Your task to perform on an android device: delete a single message in the gmail app Image 0: 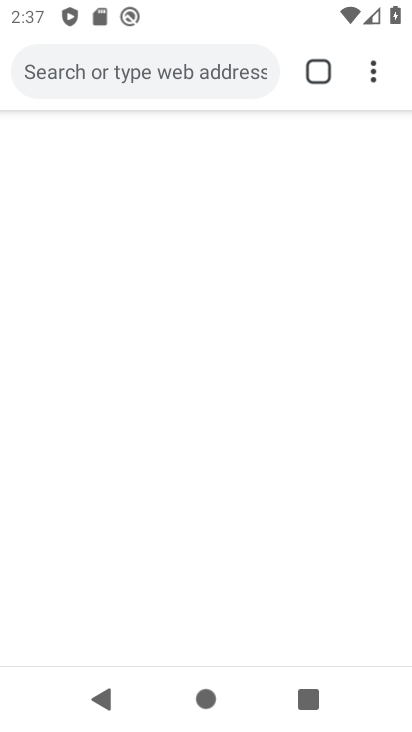
Step 0: drag from (242, 536) to (273, 208)
Your task to perform on an android device: delete a single message in the gmail app Image 1: 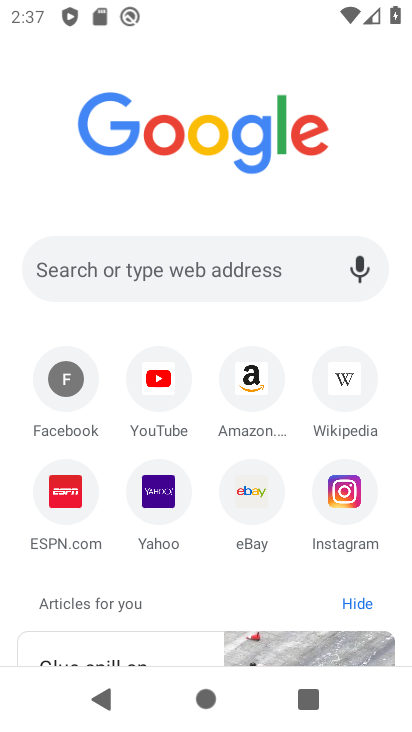
Step 1: press home button
Your task to perform on an android device: delete a single message in the gmail app Image 2: 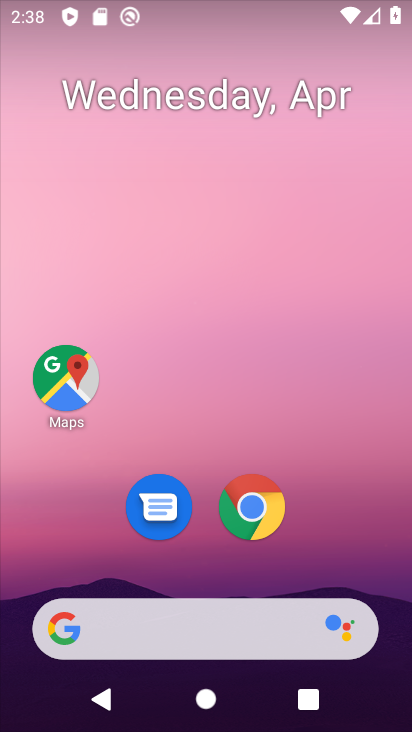
Step 2: drag from (250, 609) to (327, 56)
Your task to perform on an android device: delete a single message in the gmail app Image 3: 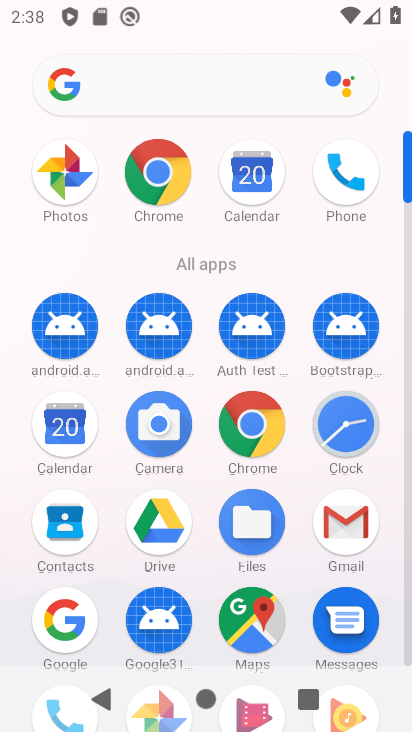
Step 3: click (373, 548)
Your task to perform on an android device: delete a single message in the gmail app Image 4: 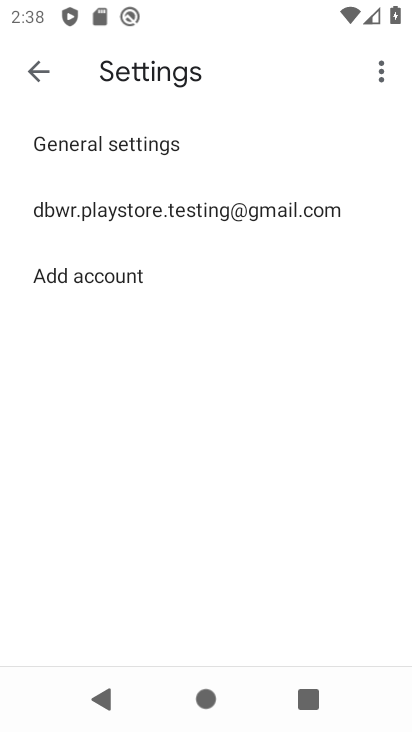
Step 4: press back button
Your task to perform on an android device: delete a single message in the gmail app Image 5: 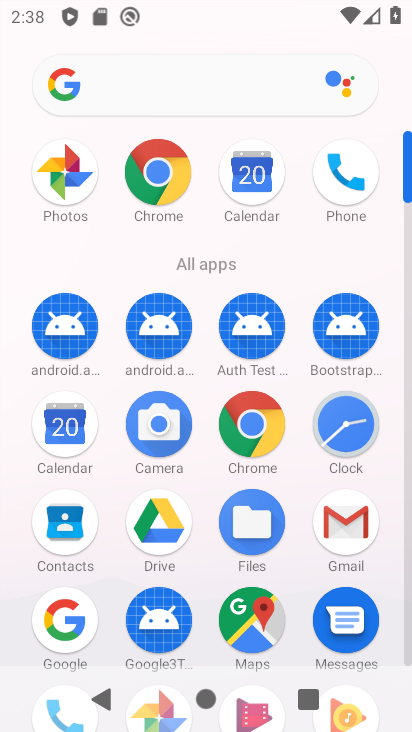
Step 5: click (340, 515)
Your task to perform on an android device: delete a single message in the gmail app Image 6: 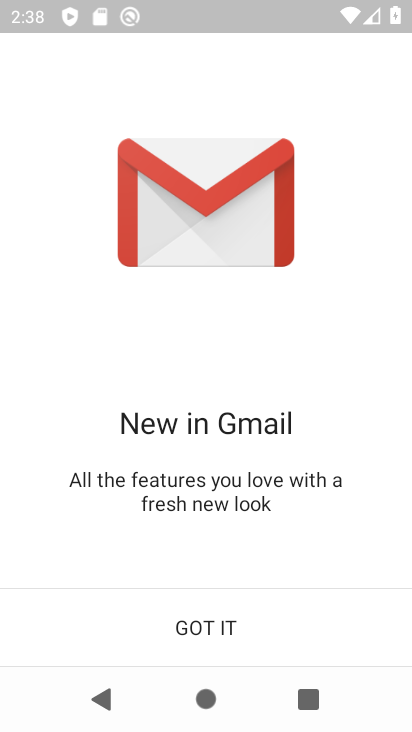
Step 6: click (211, 613)
Your task to perform on an android device: delete a single message in the gmail app Image 7: 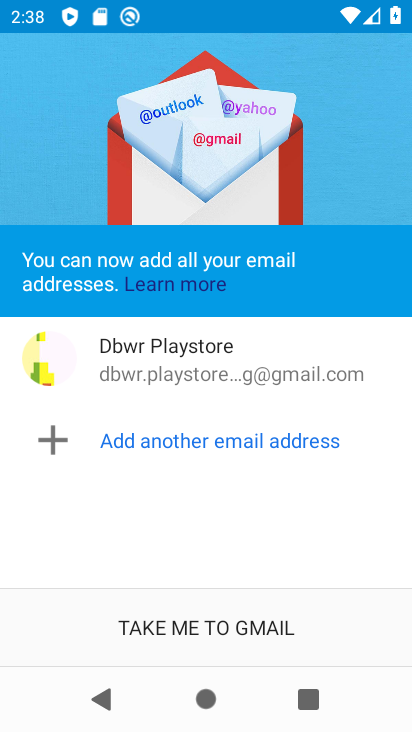
Step 7: click (280, 617)
Your task to perform on an android device: delete a single message in the gmail app Image 8: 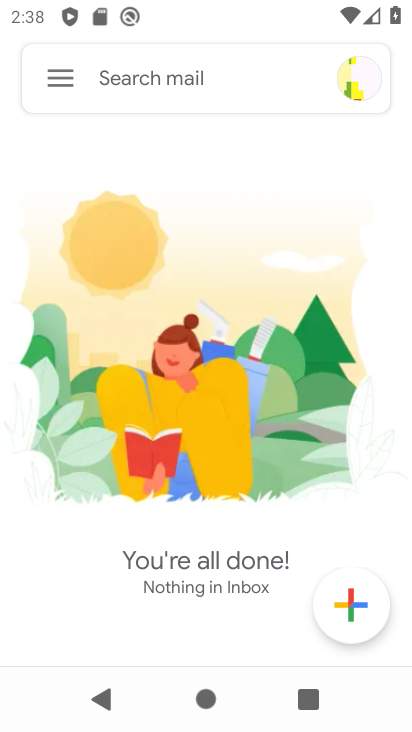
Step 8: click (62, 74)
Your task to perform on an android device: delete a single message in the gmail app Image 9: 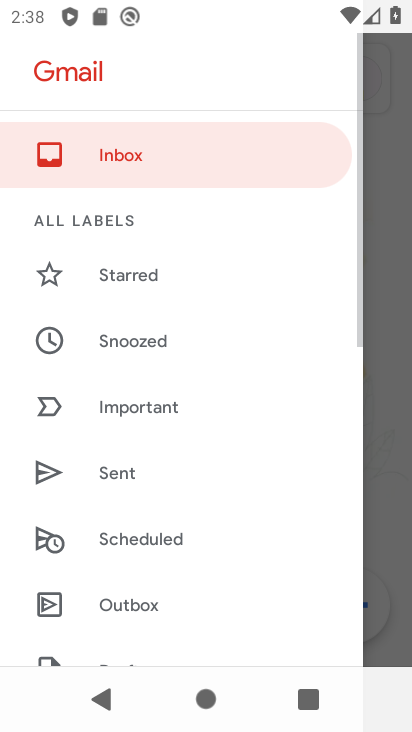
Step 9: drag from (168, 545) to (175, 118)
Your task to perform on an android device: delete a single message in the gmail app Image 10: 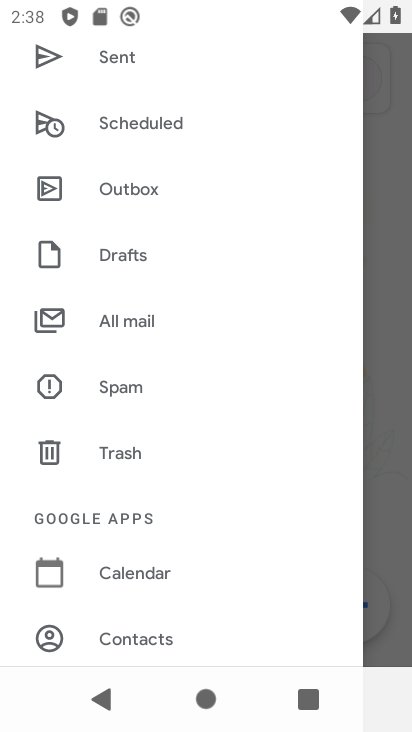
Step 10: click (131, 339)
Your task to perform on an android device: delete a single message in the gmail app Image 11: 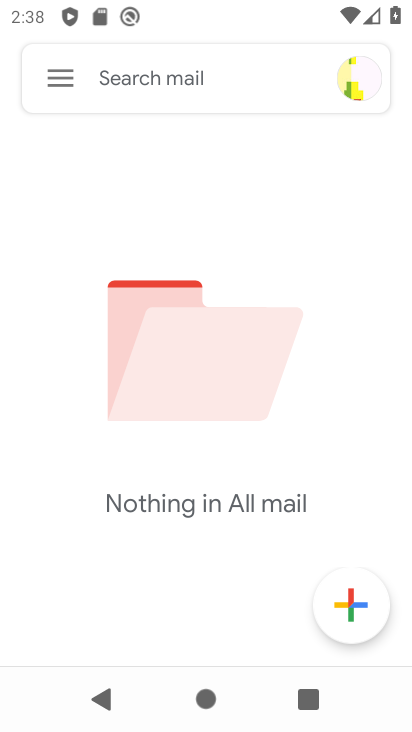
Step 11: task complete